Your task to perform on an android device: Go to location settings Image 0: 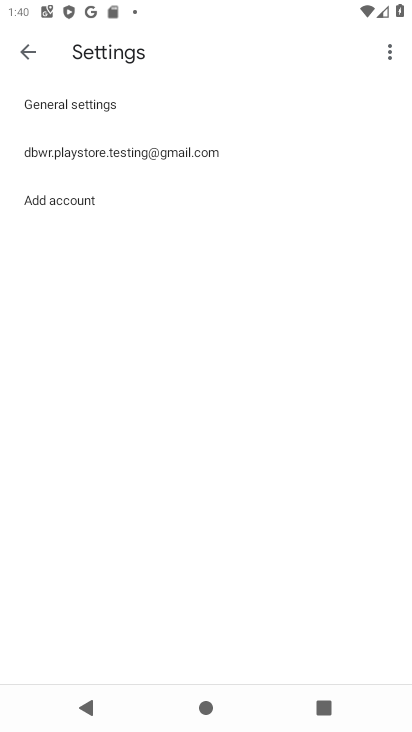
Step 0: press home button
Your task to perform on an android device: Go to location settings Image 1: 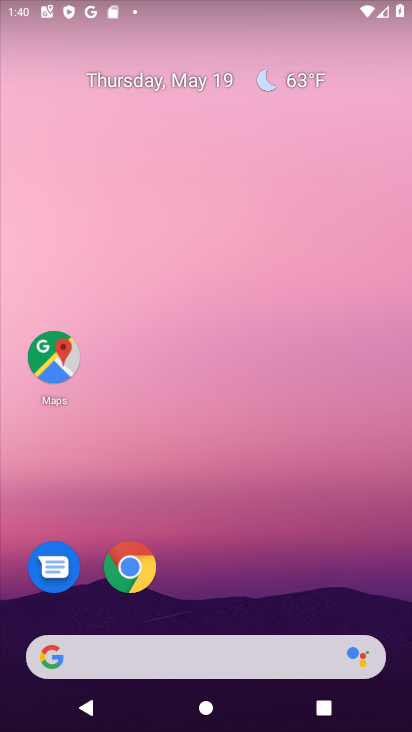
Step 1: drag from (296, 305) to (254, 0)
Your task to perform on an android device: Go to location settings Image 2: 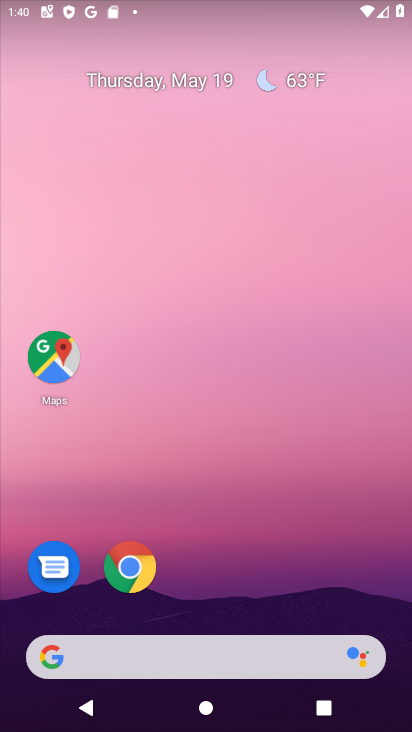
Step 2: drag from (257, 558) to (179, 52)
Your task to perform on an android device: Go to location settings Image 3: 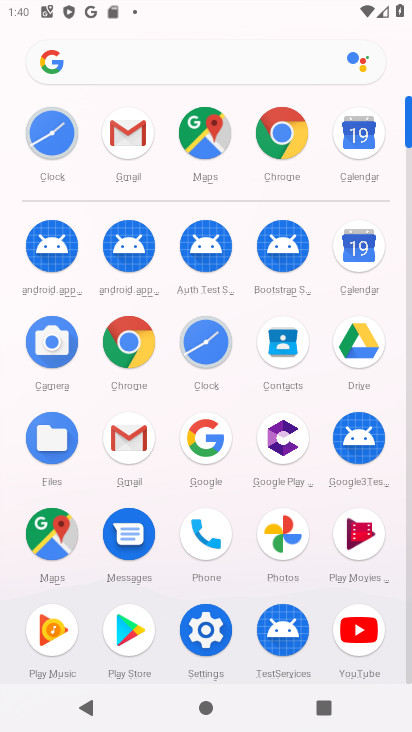
Step 3: click (225, 635)
Your task to perform on an android device: Go to location settings Image 4: 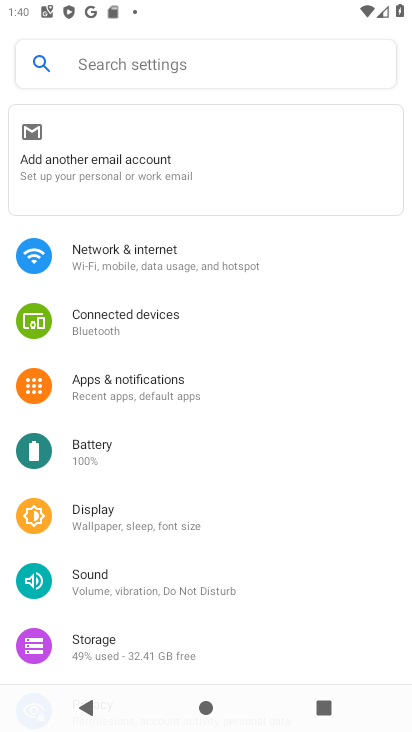
Step 4: drag from (143, 573) to (151, 214)
Your task to perform on an android device: Go to location settings Image 5: 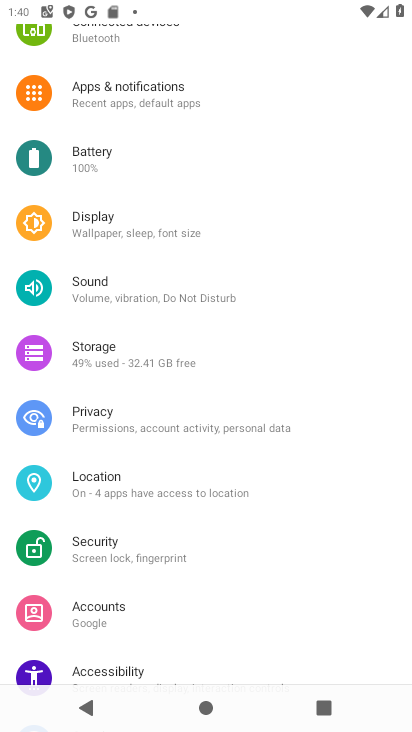
Step 5: click (166, 489)
Your task to perform on an android device: Go to location settings Image 6: 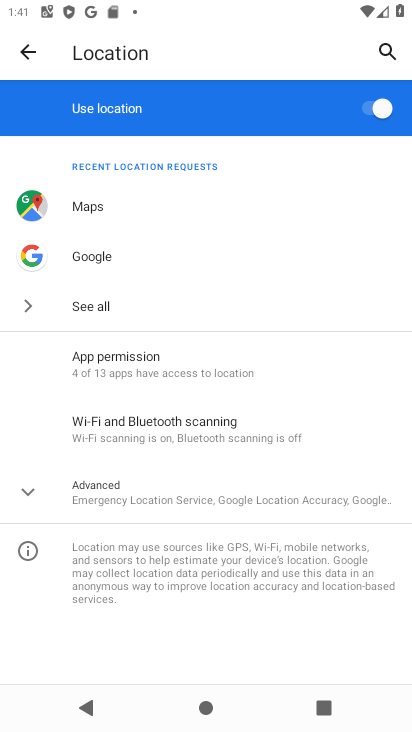
Step 6: task complete